Your task to perform on an android device: turn pop-ups on in chrome Image 0: 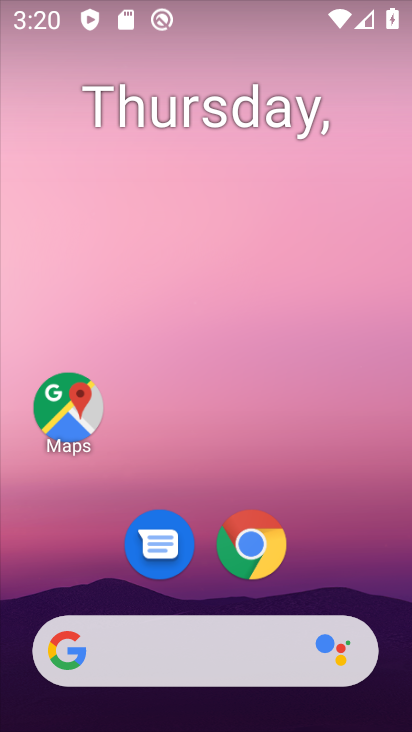
Step 0: click (260, 560)
Your task to perform on an android device: turn pop-ups on in chrome Image 1: 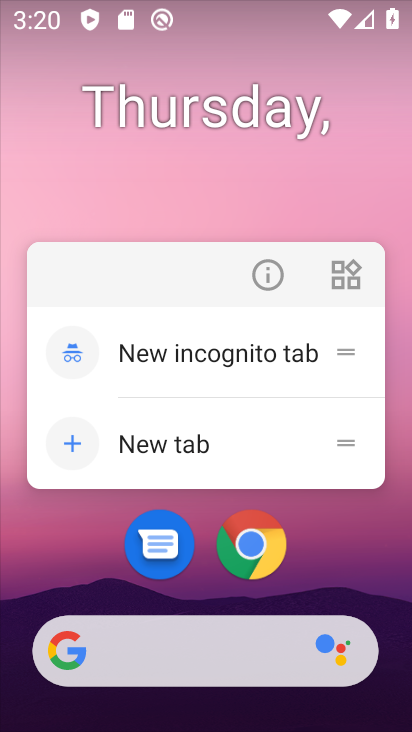
Step 1: click (261, 559)
Your task to perform on an android device: turn pop-ups on in chrome Image 2: 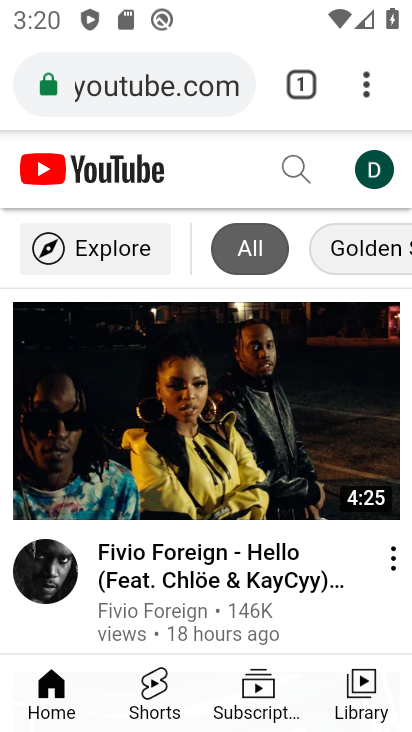
Step 2: click (363, 85)
Your task to perform on an android device: turn pop-ups on in chrome Image 3: 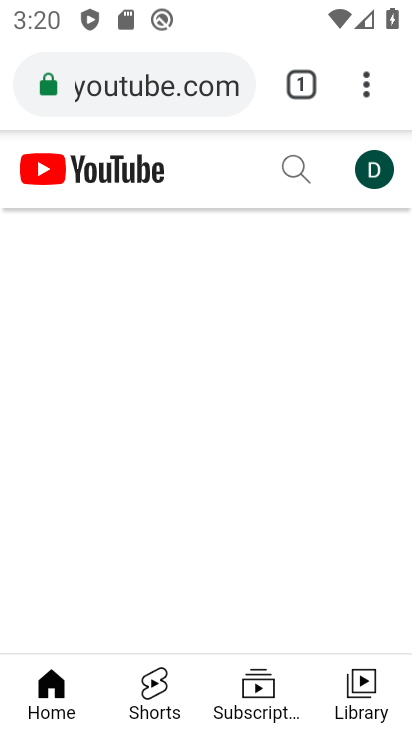
Step 3: click (364, 85)
Your task to perform on an android device: turn pop-ups on in chrome Image 4: 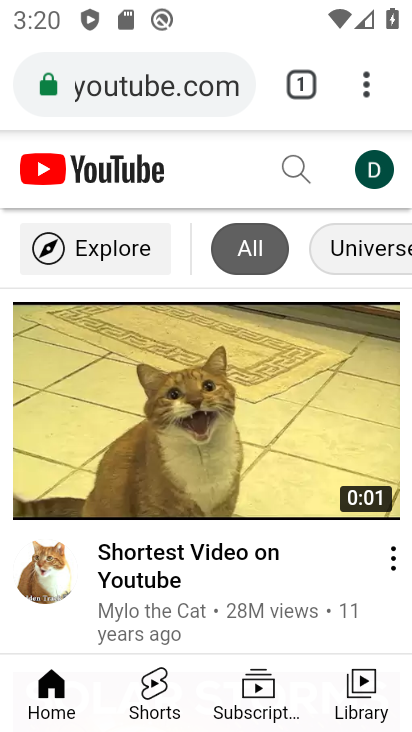
Step 4: click (373, 79)
Your task to perform on an android device: turn pop-ups on in chrome Image 5: 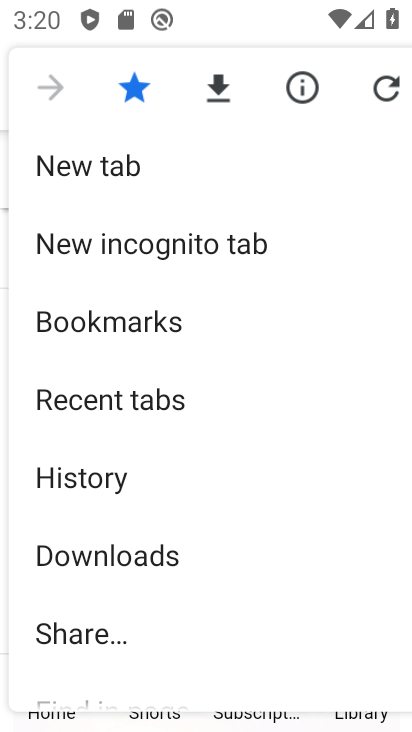
Step 5: drag from (237, 540) to (274, 92)
Your task to perform on an android device: turn pop-ups on in chrome Image 6: 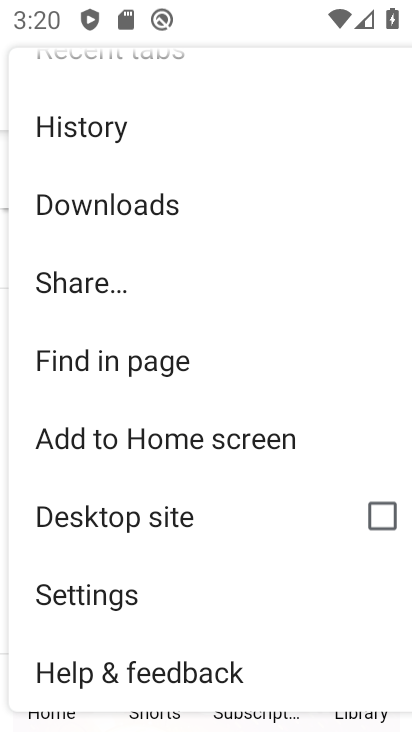
Step 6: click (100, 608)
Your task to perform on an android device: turn pop-ups on in chrome Image 7: 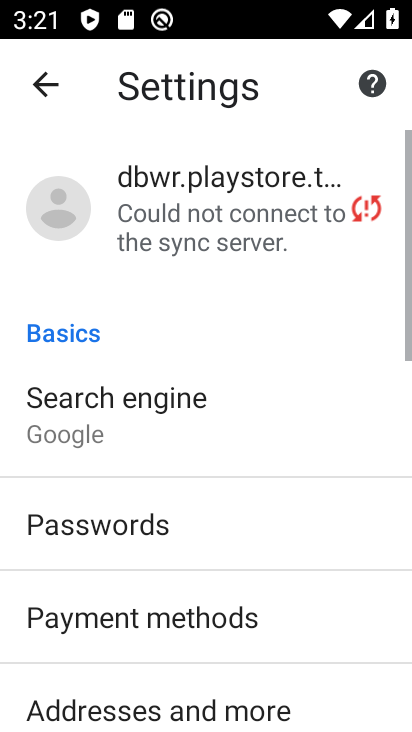
Step 7: drag from (125, 578) to (194, 78)
Your task to perform on an android device: turn pop-ups on in chrome Image 8: 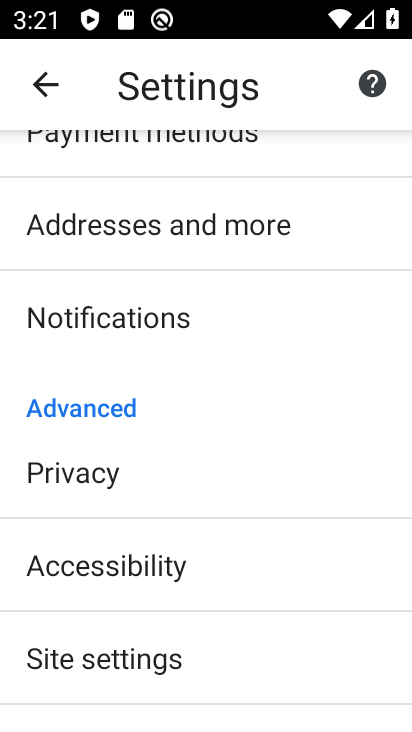
Step 8: drag from (201, 667) to (213, 337)
Your task to perform on an android device: turn pop-ups on in chrome Image 9: 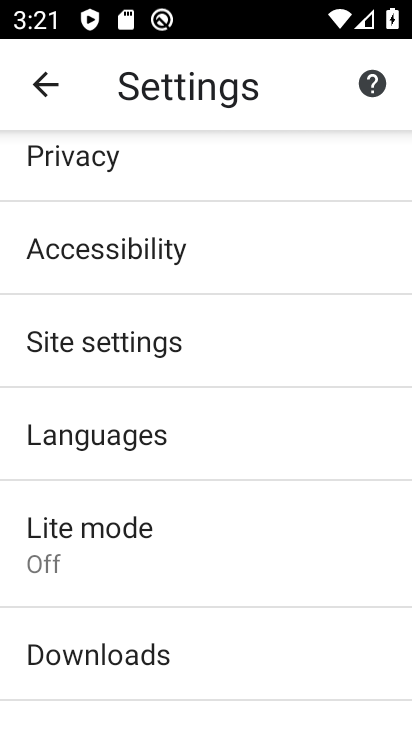
Step 9: click (173, 339)
Your task to perform on an android device: turn pop-ups on in chrome Image 10: 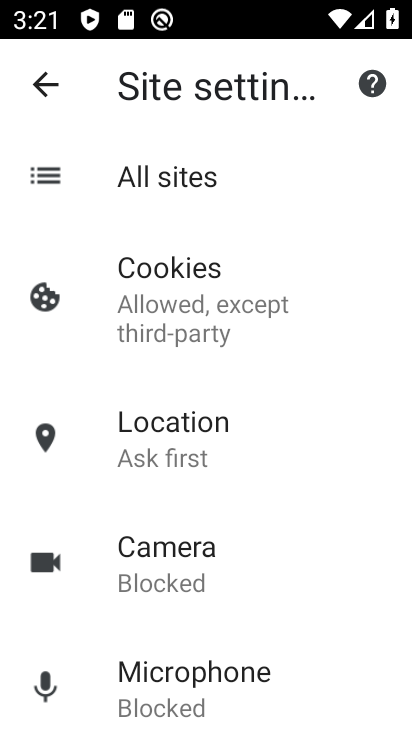
Step 10: drag from (241, 613) to (247, 228)
Your task to perform on an android device: turn pop-ups on in chrome Image 11: 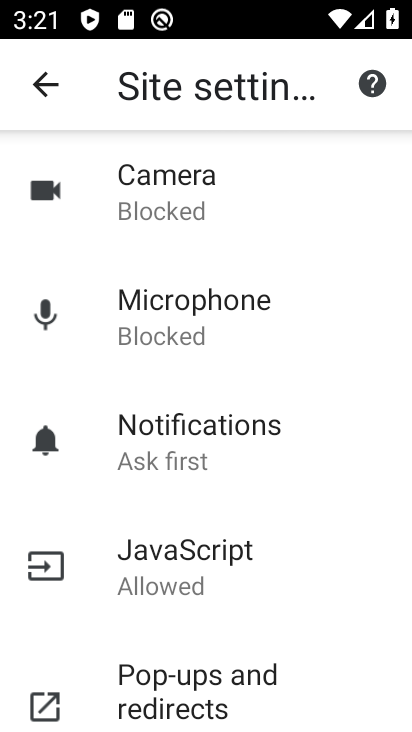
Step 11: drag from (201, 634) to (209, 361)
Your task to perform on an android device: turn pop-ups on in chrome Image 12: 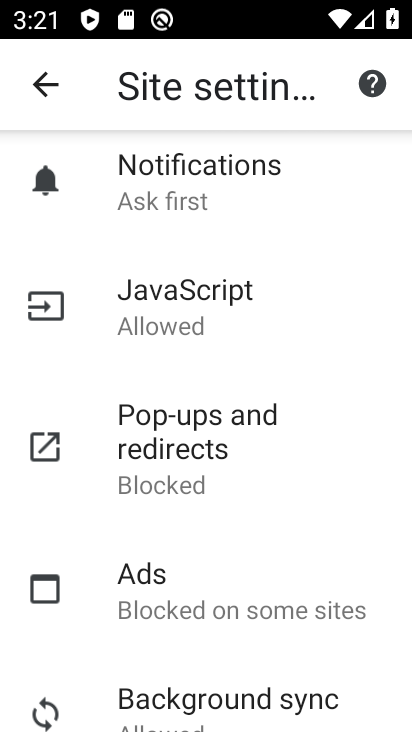
Step 12: click (198, 425)
Your task to perform on an android device: turn pop-ups on in chrome Image 13: 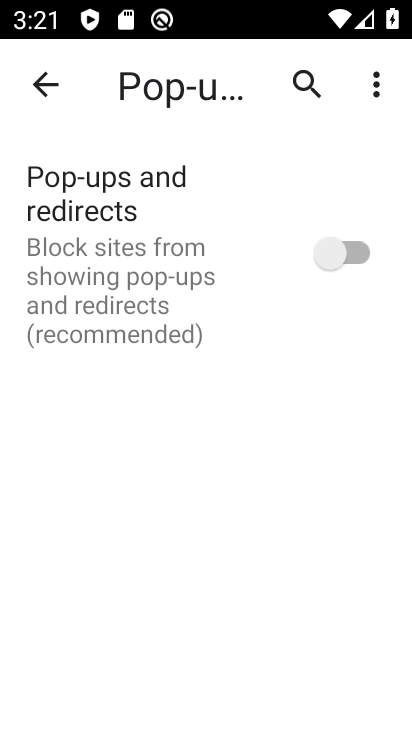
Step 13: click (337, 250)
Your task to perform on an android device: turn pop-ups on in chrome Image 14: 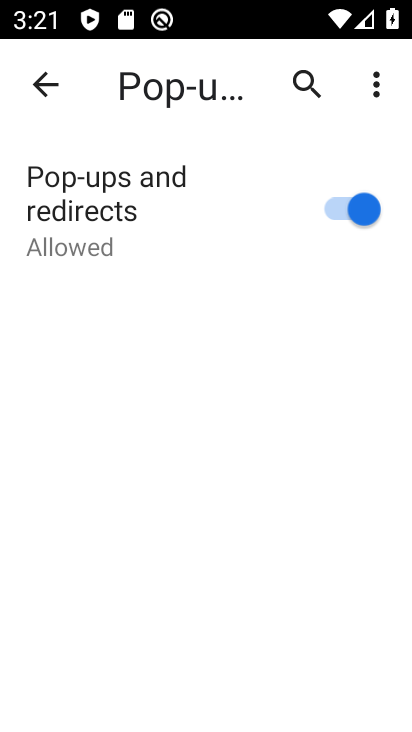
Step 14: task complete